Your task to perform on an android device: Open Google Image 0: 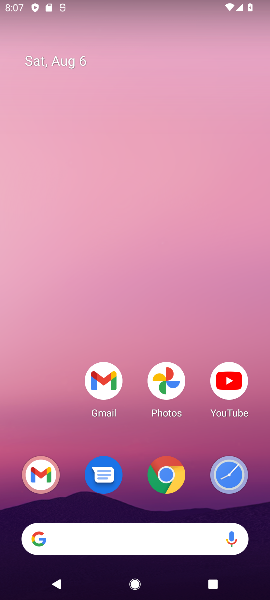
Step 0: drag from (129, 444) to (137, 129)
Your task to perform on an android device: Open Google Image 1: 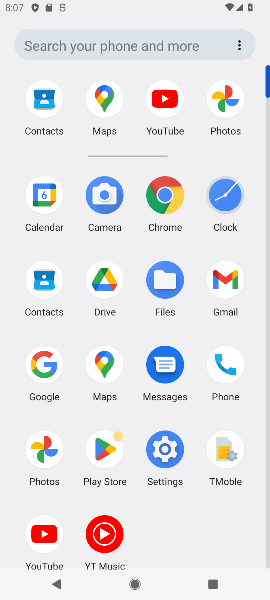
Step 1: click (50, 354)
Your task to perform on an android device: Open Google Image 2: 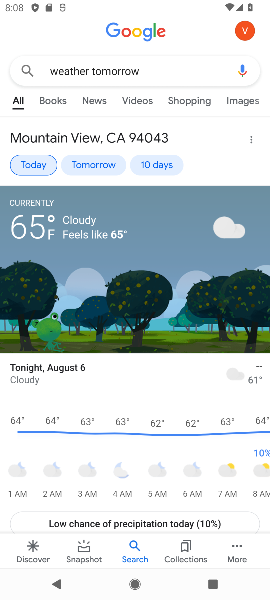
Step 2: task complete